Your task to perform on an android device: Open Chrome and go to the settings page Image 0: 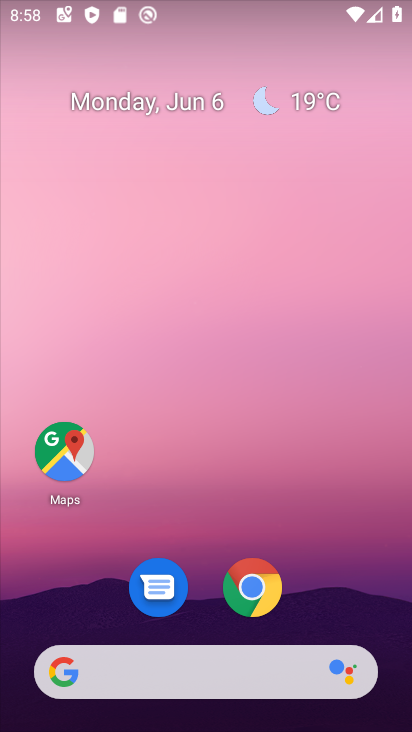
Step 0: click (255, 609)
Your task to perform on an android device: Open Chrome and go to the settings page Image 1: 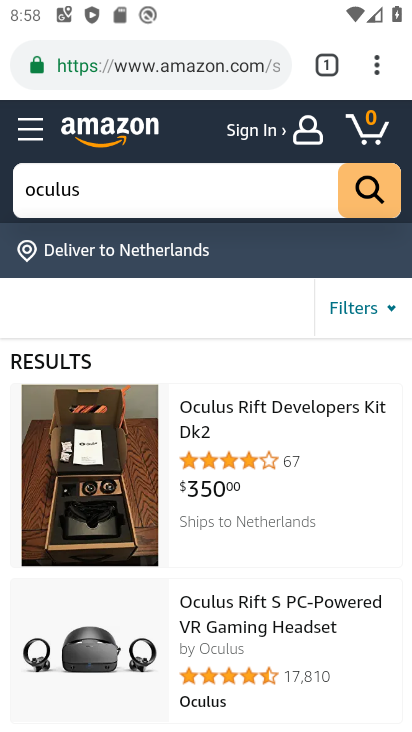
Step 1: task complete